Your task to perform on an android device: toggle translation in the chrome app Image 0: 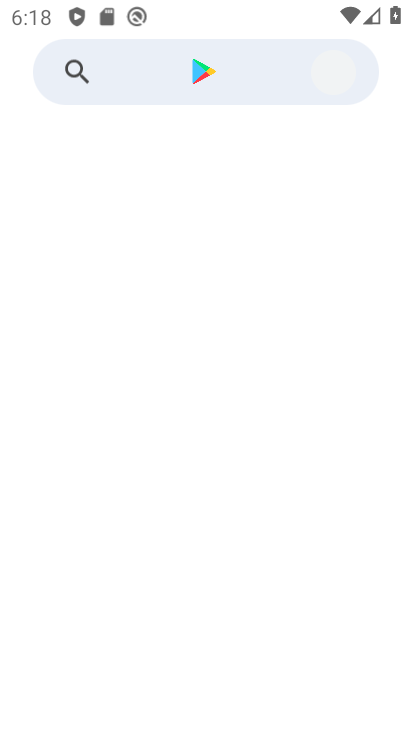
Step 0: press home button
Your task to perform on an android device: toggle translation in the chrome app Image 1: 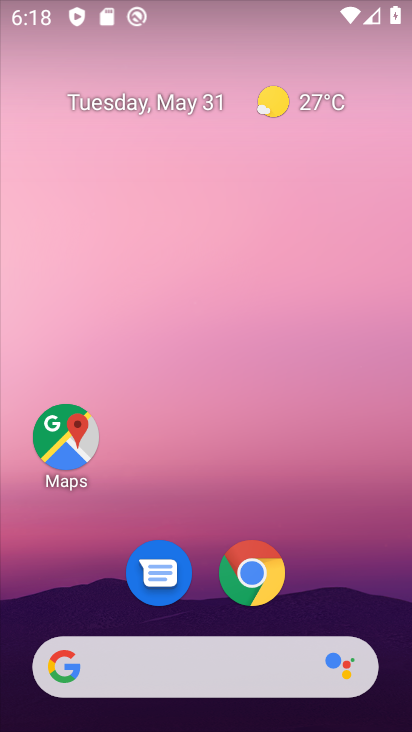
Step 1: drag from (398, 658) to (283, 19)
Your task to perform on an android device: toggle translation in the chrome app Image 2: 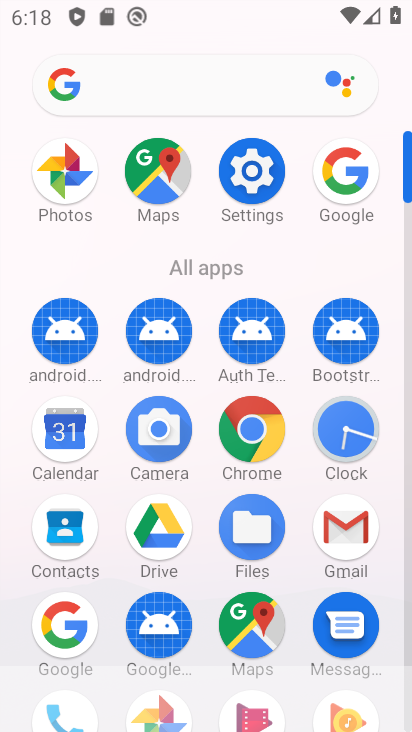
Step 2: click (248, 449)
Your task to perform on an android device: toggle translation in the chrome app Image 3: 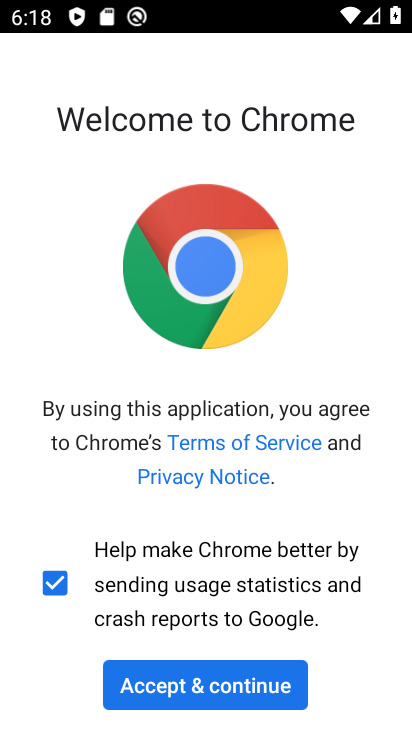
Step 3: click (212, 672)
Your task to perform on an android device: toggle translation in the chrome app Image 4: 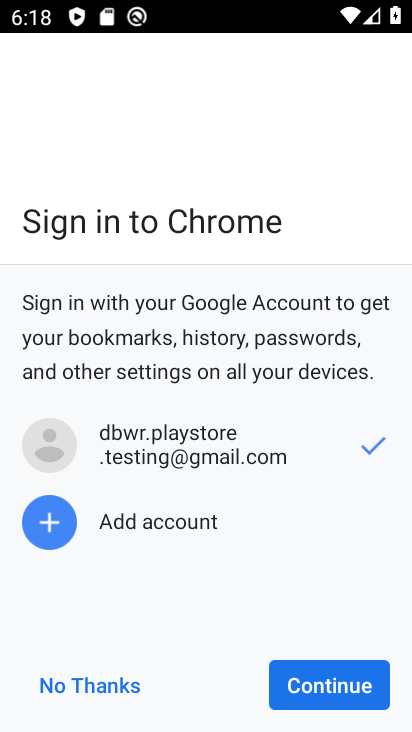
Step 4: click (316, 680)
Your task to perform on an android device: toggle translation in the chrome app Image 5: 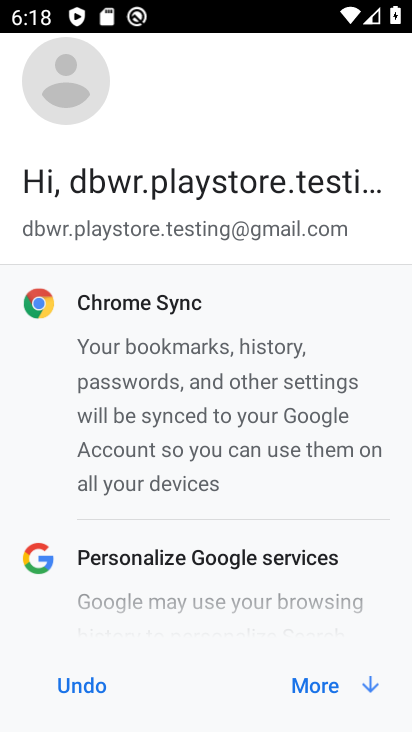
Step 5: click (316, 680)
Your task to perform on an android device: toggle translation in the chrome app Image 6: 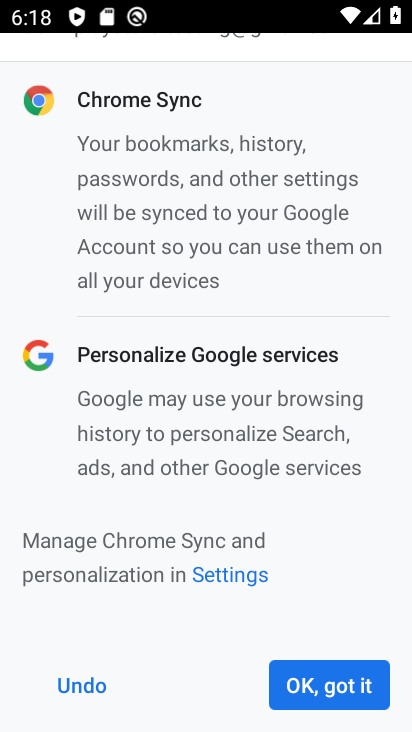
Step 6: click (316, 680)
Your task to perform on an android device: toggle translation in the chrome app Image 7: 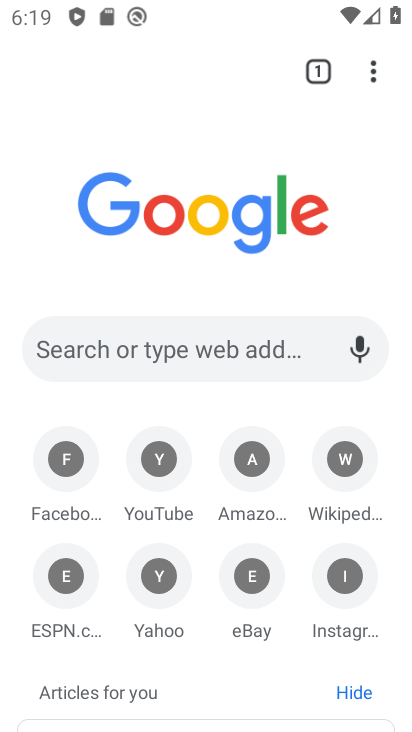
Step 7: click (364, 61)
Your task to perform on an android device: toggle translation in the chrome app Image 8: 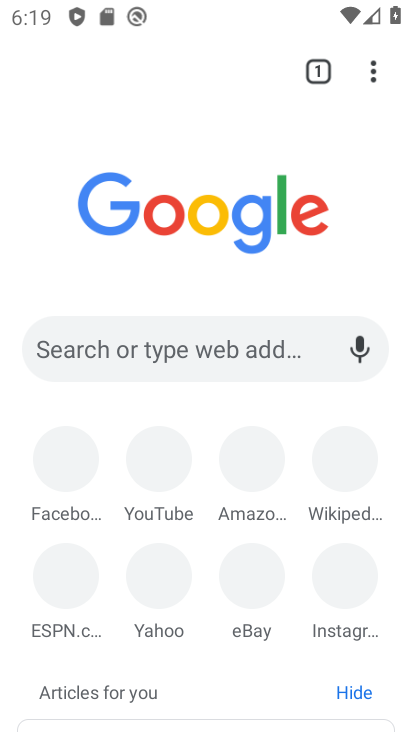
Step 8: click (371, 64)
Your task to perform on an android device: toggle translation in the chrome app Image 9: 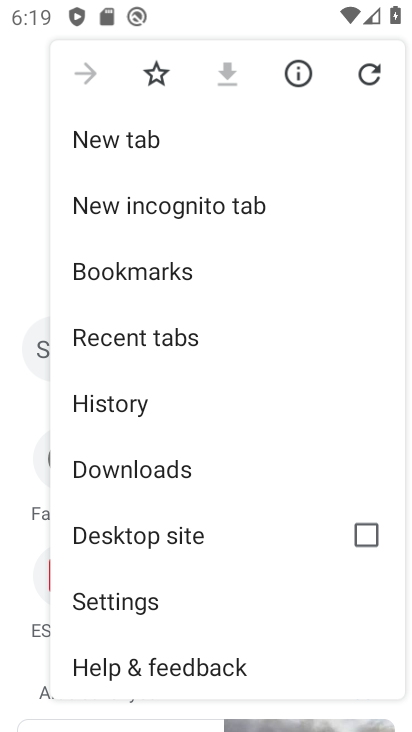
Step 9: click (152, 599)
Your task to perform on an android device: toggle translation in the chrome app Image 10: 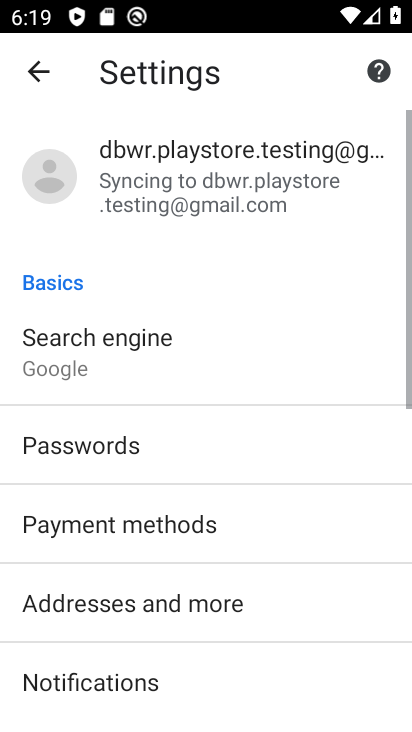
Step 10: drag from (158, 607) to (224, 150)
Your task to perform on an android device: toggle translation in the chrome app Image 11: 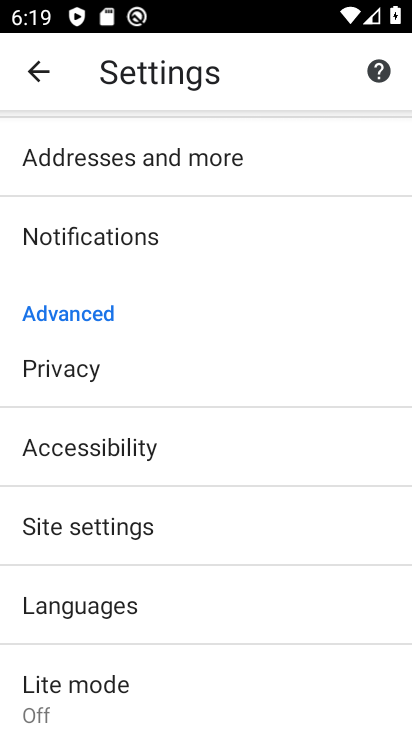
Step 11: click (104, 515)
Your task to perform on an android device: toggle translation in the chrome app Image 12: 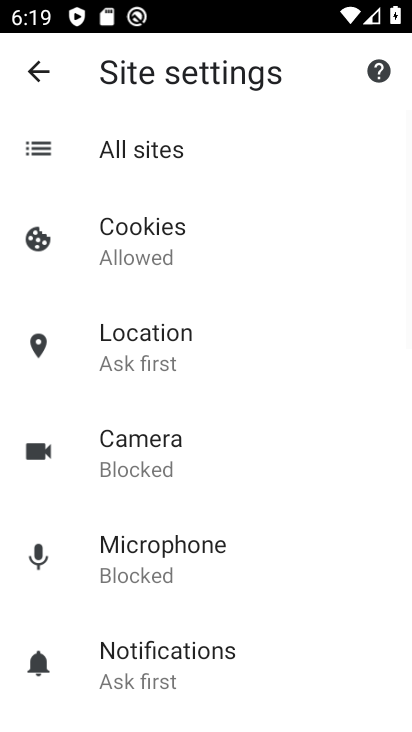
Step 12: drag from (130, 612) to (187, 203)
Your task to perform on an android device: toggle translation in the chrome app Image 13: 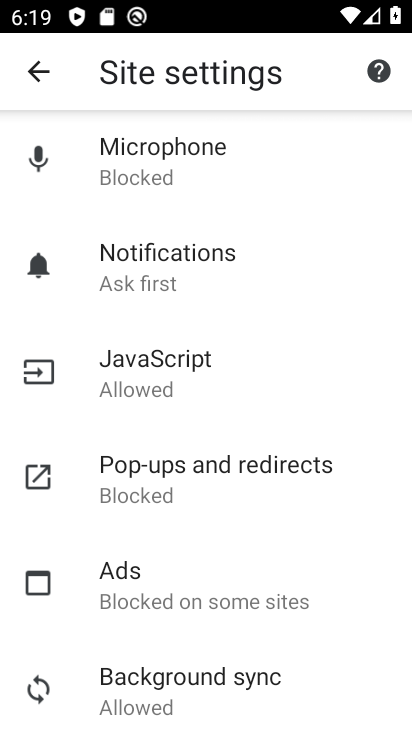
Step 13: press back button
Your task to perform on an android device: toggle translation in the chrome app Image 14: 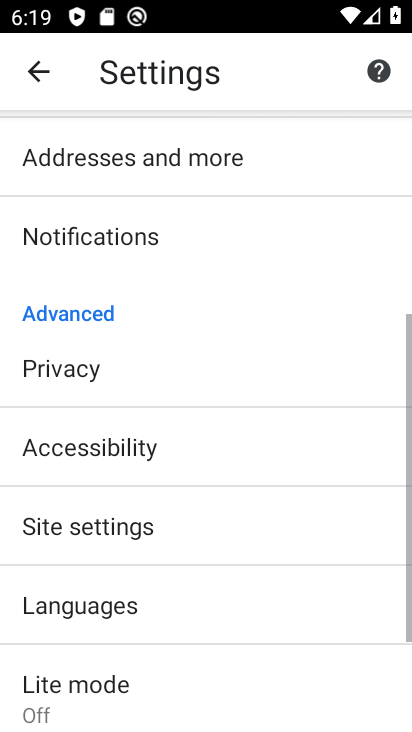
Step 14: click (137, 617)
Your task to perform on an android device: toggle translation in the chrome app Image 15: 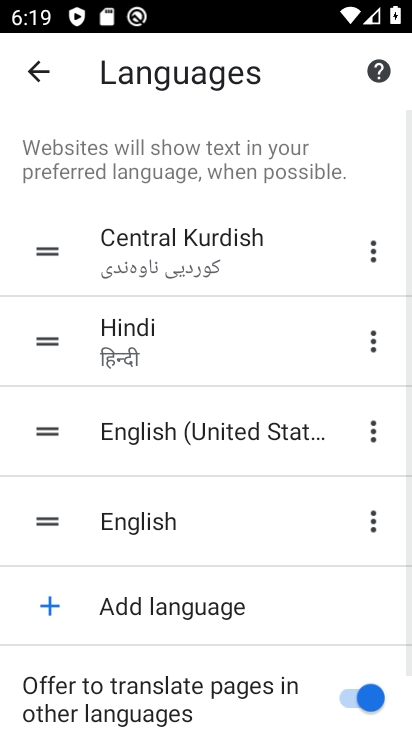
Step 15: click (343, 688)
Your task to perform on an android device: toggle translation in the chrome app Image 16: 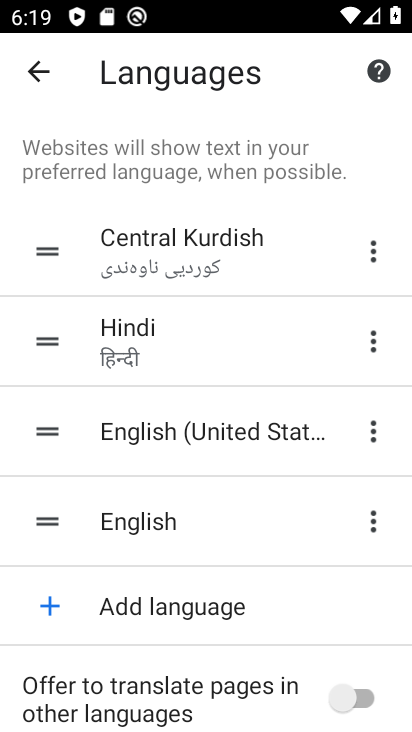
Step 16: task complete